Your task to perform on an android device: Open battery settings Image 0: 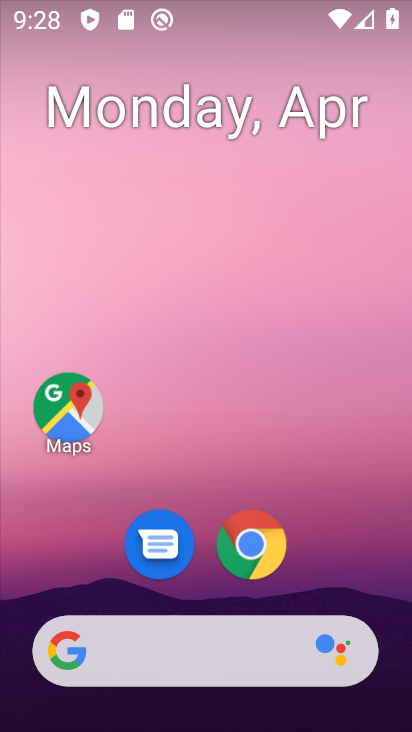
Step 0: drag from (339, 550) to (308, 124)
Your task to perform on an android device: Open battery settings Image 1: 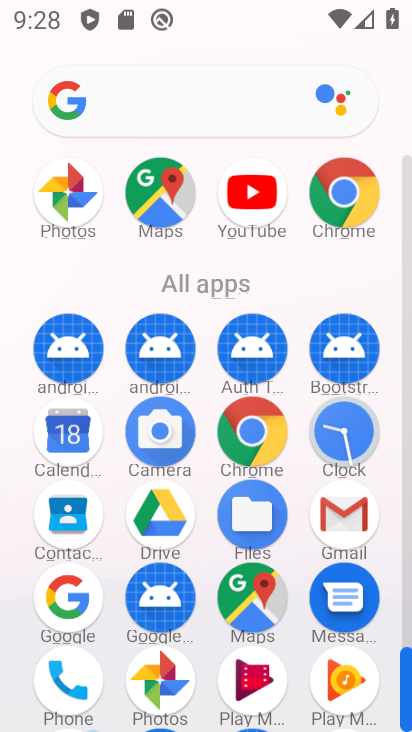
Step 1: drag from (394, 600) to (391, 357)
Your task to perform on an android device: Open battery settings Image 2: 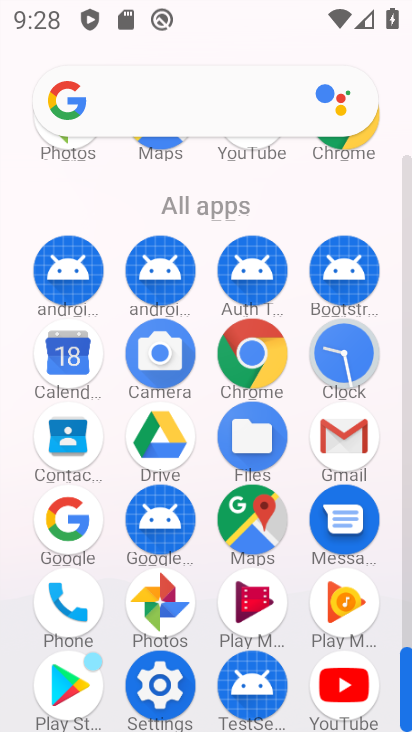
Step 2: click (154, 673)
Your task to perform on an android device: Open battery settings Image 3: 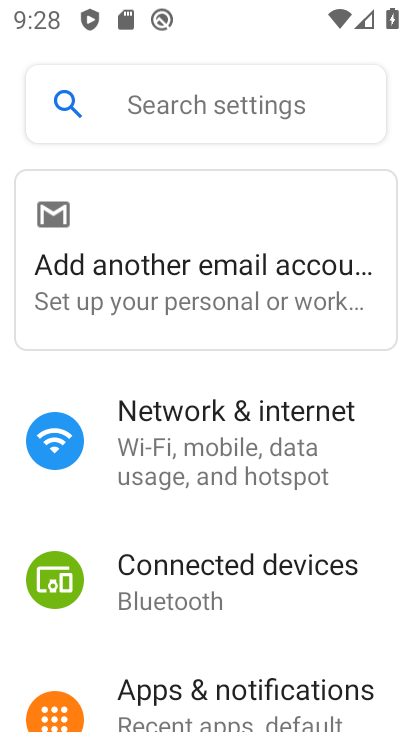
Step 3: drag from (244, 633) to (332, 125)
Your task to perform on an android device: Open battery settings Image 4: 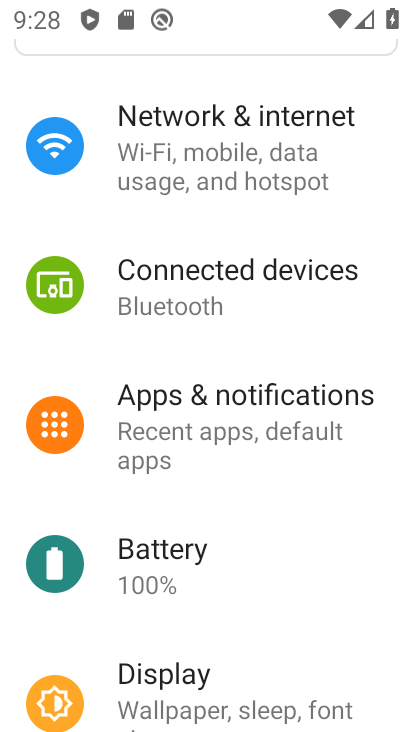
Step 4: click (238, 591)
Your task to perform on an android device: Open battery settings Image 5: 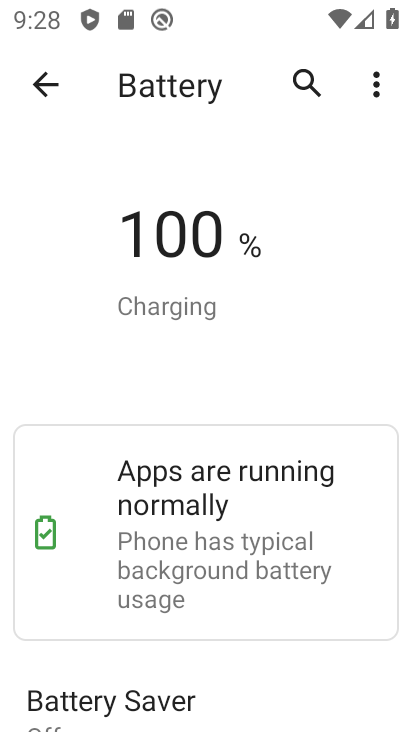
Step 5: task complete